Your task to perform on an android device: turn off smart reply in the gmail app Image 0: 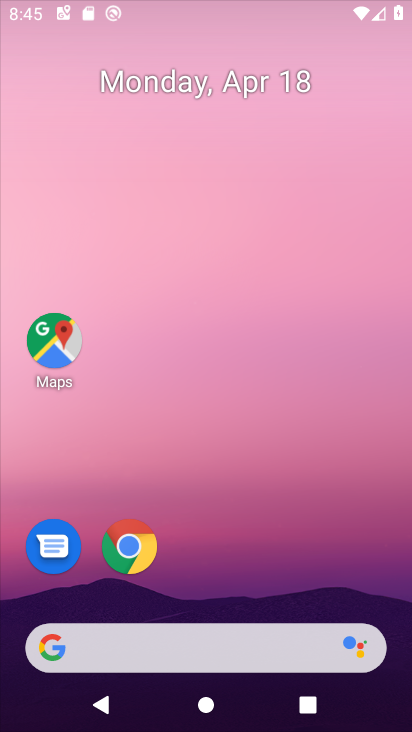
Step 0: drag from (318, 571) to (256, 143)
Your task to perform on an android device: turn off smart reply in the gmail app Image 1: 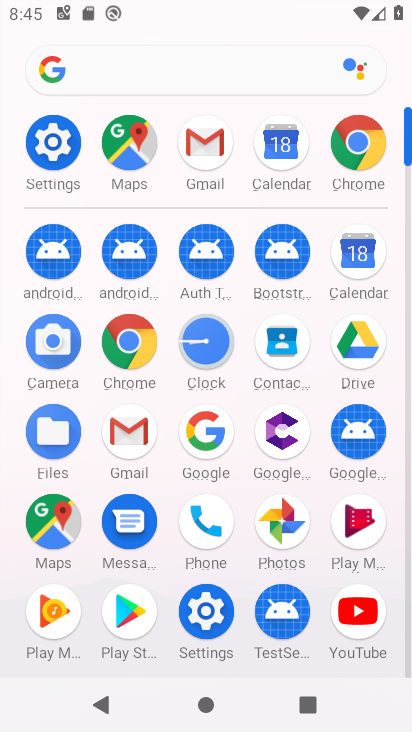
Step 1: click (198, 158)
Your task to perform on an android device: turn off smart reply in the gmail app Image 2: 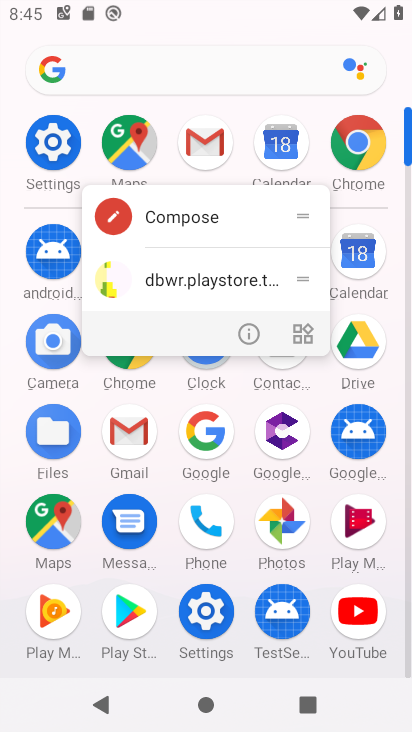
Step 2: click (217, 150)
Your task to perform on an android device: turn off smart reply in the gmail app Image 3: 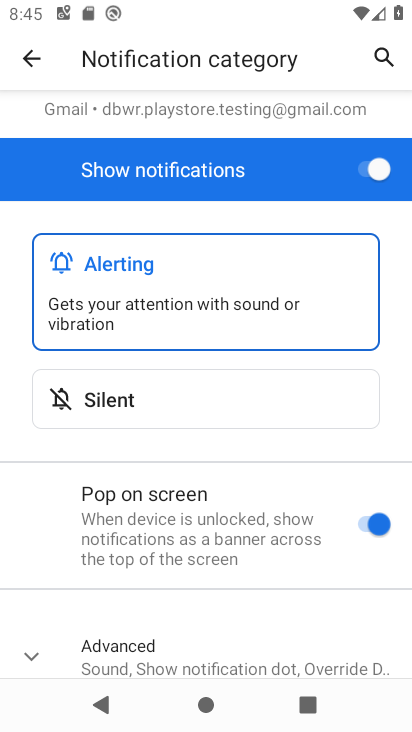
Step 3: click (32, 50)
Your task to perform on an android device: turn off smart reply in the gmail app Image 4: 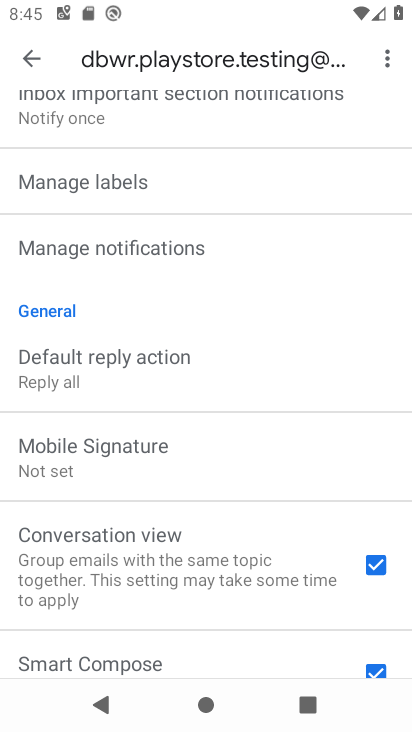
Step 4: drag from (248, 642) to (195, 257)
Your task to perform on an android device: turn off smart reply in the gmail app Image 5: 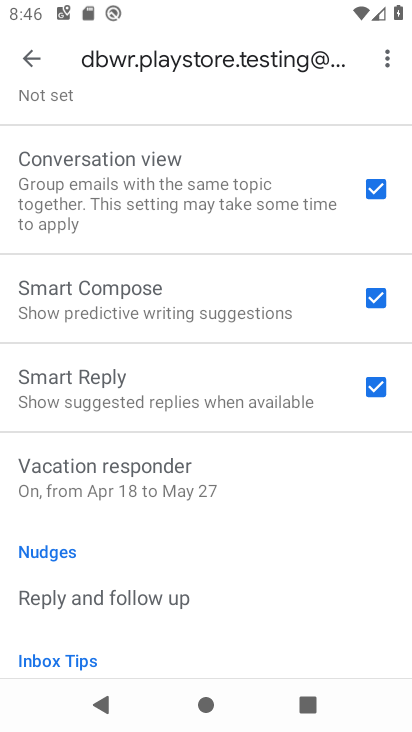
Step 5: click (374, 398)
Your task to perform on an android device: turn off smart reply in the gmail app Image 6: 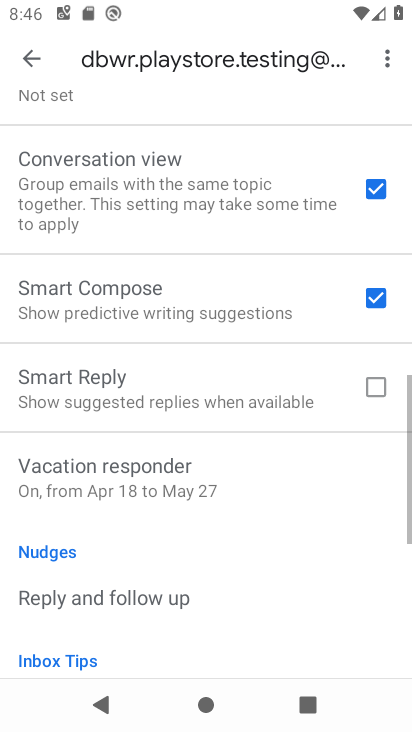
Step 6: task complete